Your task to perform on an android device: delete a single message in the gmail app Image 0: 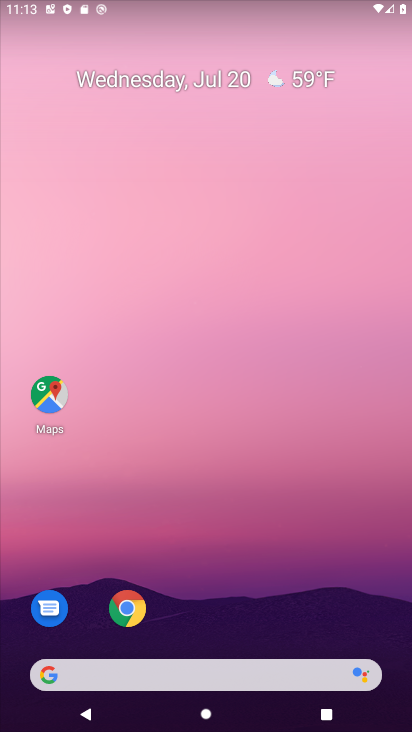
Step 0: drag from (302, 598) to (322, 49)
Your task to perform on an android device: delete a single message in the gmail app Image 1: 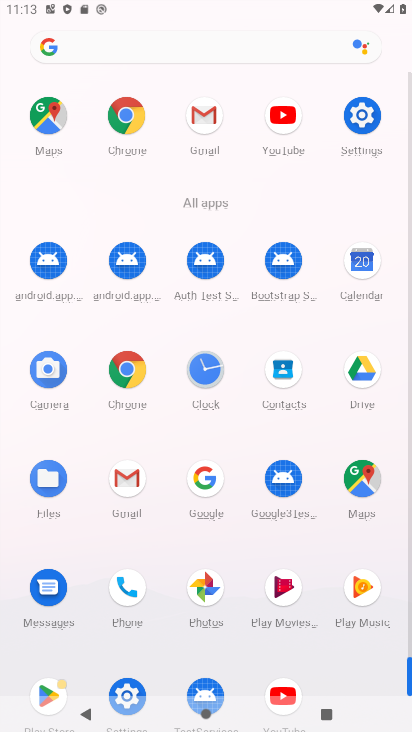
Step 1: click (212, 117)
Your task to perform on an android device: delete a single message in the gmail app Image 2: 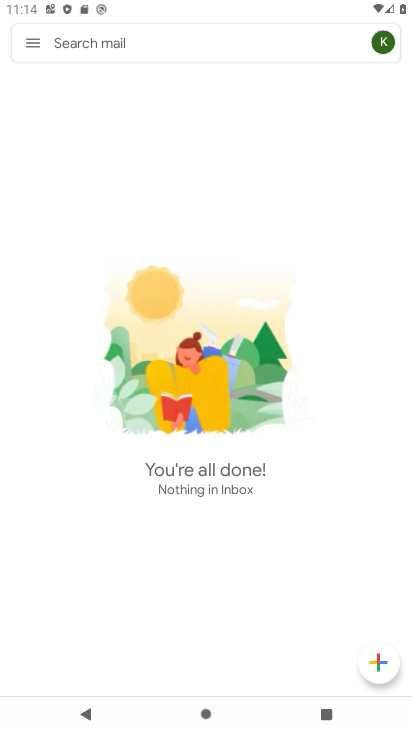
Step 2: task complete